Your task to perform on an android device: empty trash in google photos Image 0: 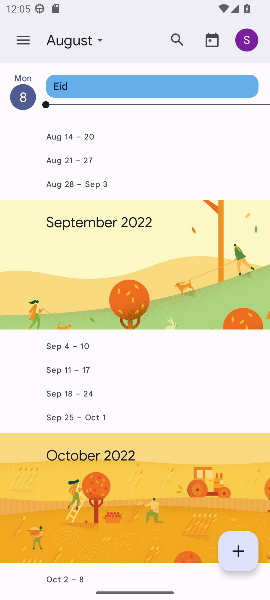
Step 0: press home button
Your task to perform on an android device: empty trash in google photos Image 1: 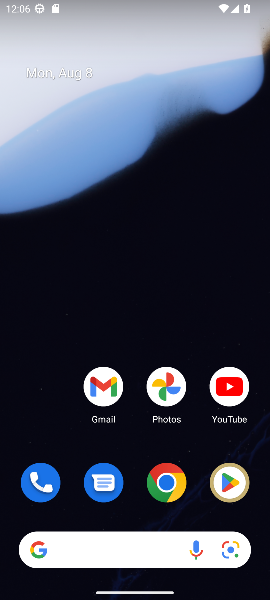
Step 1: drag from (122, 539) to (186, 32)
Your task to perform on an android device: empty trash in google photos Image 2: 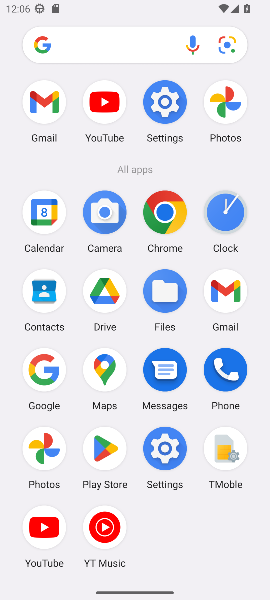
Step 2: click (48, 437)
Your task to perform on an android device: empty trash in google photos Image 3: 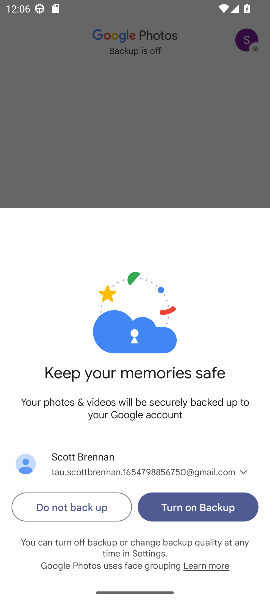
Step 3: click (183, 507)
Your task to perform on an android device: empty trash in google photos Image 4: 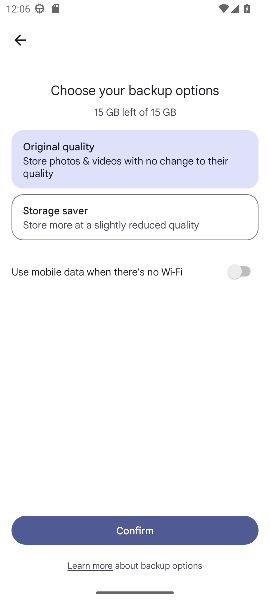
Step 4: click (170, 524)
Your task to perform on an android device: empty trash in google photos Image 5: 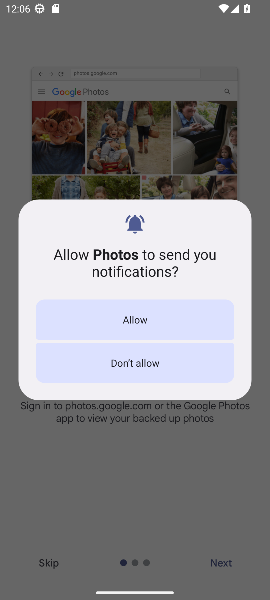
Step 5: click (158, 359)
Your task to perform on an android device: empty trash in google photos Image 6: 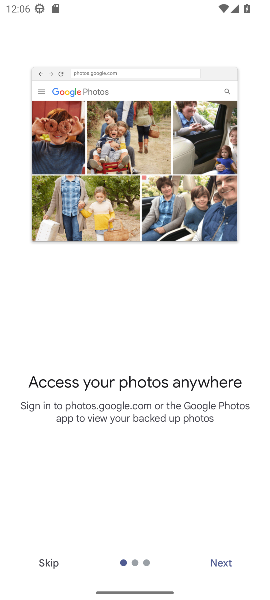
Step 6: click (225, 564)
Your task to perform on an android device: empty trash in google photos Image 7: 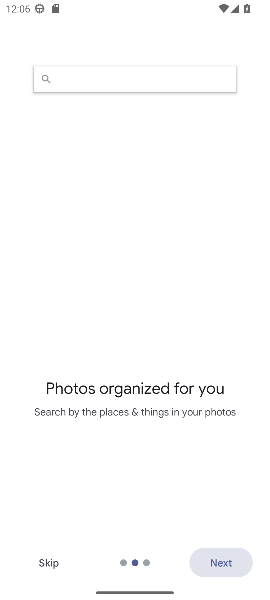
Step 7: click (225, 564)
Your task to perform on an android device: empty trash in google photos Image 8: 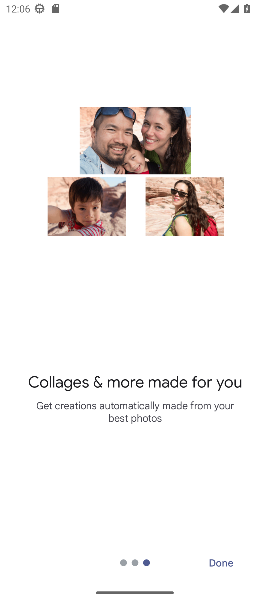
Step 8: click (205, 557)
Your task to perform on an android device: empty trash in google photos Image 9: 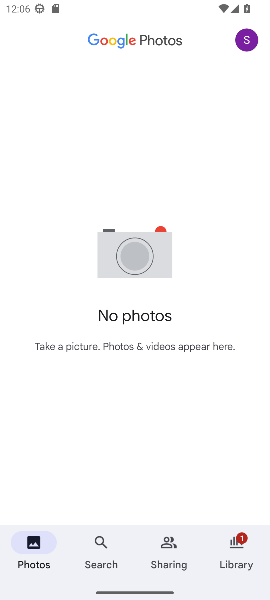
Step 9: click (238, 550)
Your task to perform on an android device: empty trash in google photos Image 10: 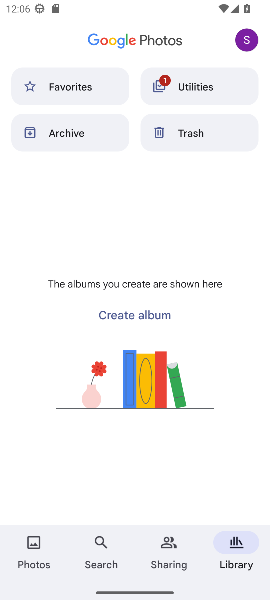
Step 10: click (182, 129)
Your task to perform on an android device: empty trash in google photos Image 11: 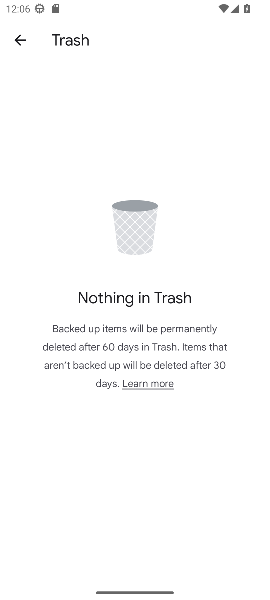
Step 11: task complete